Your task to perform on an android device: toggle location history Image 0: 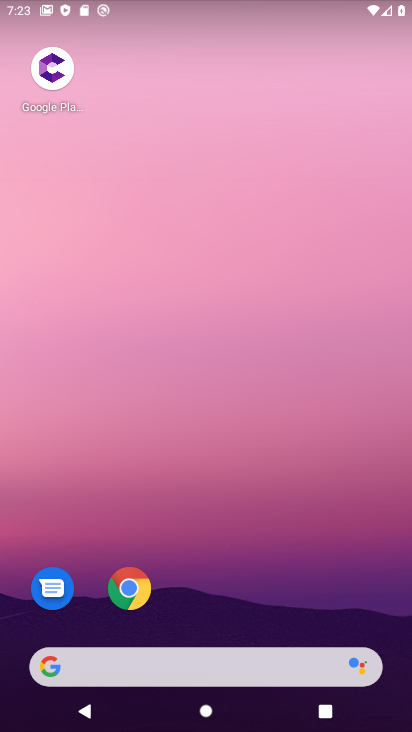
Step 0: drag from (201, 601) to (245, 125)
Your task to perform on an android device: toggle location history Image 1: 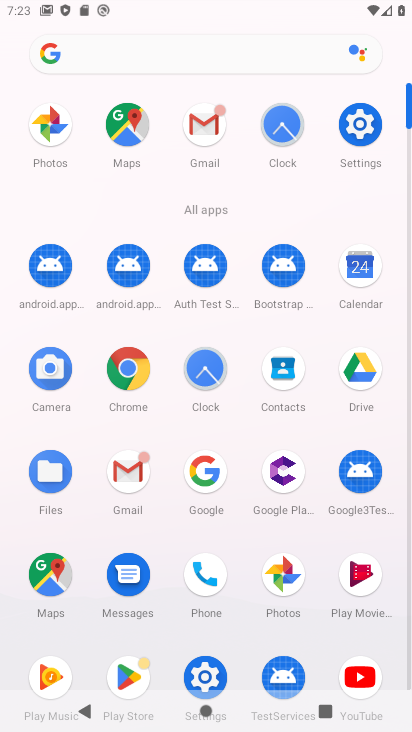
Step 1: click (359, 122)
Your task to perform on an android device: toggle location history Image 2: 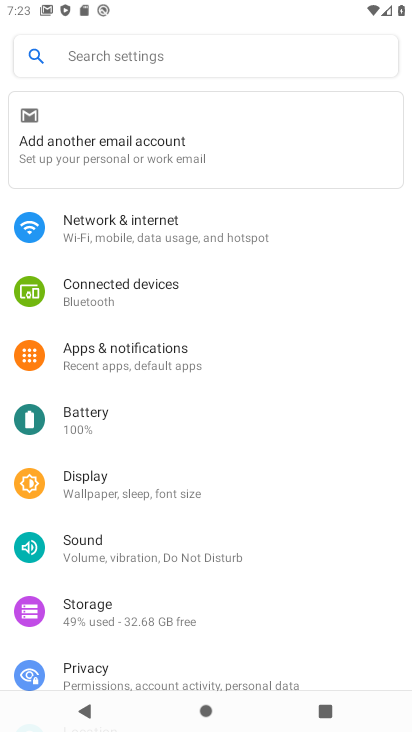
Step 2: drag from (139, 605) to (150, 236)
Your task to perform on an android device: toggle location history Image 3: 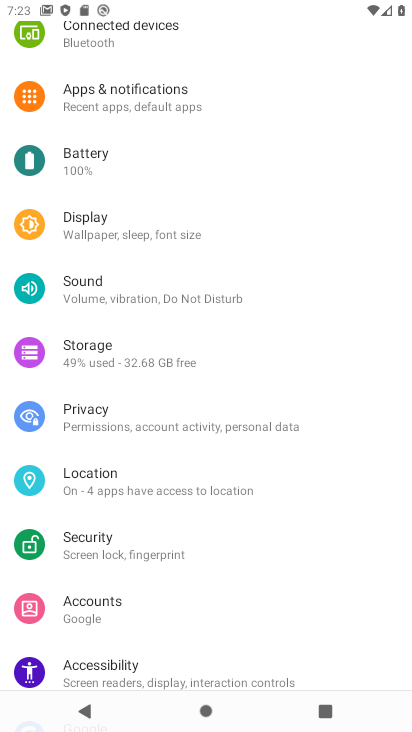
Step 3: click (120, 603)
Your task to perform on an android device: toggle location history Image 4: 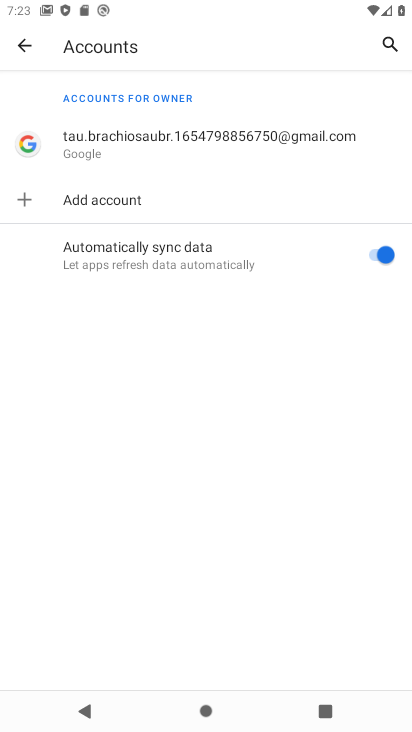
Step 4: click (16, 35)
Your task to perform on an android device: toggle location history Image 5: 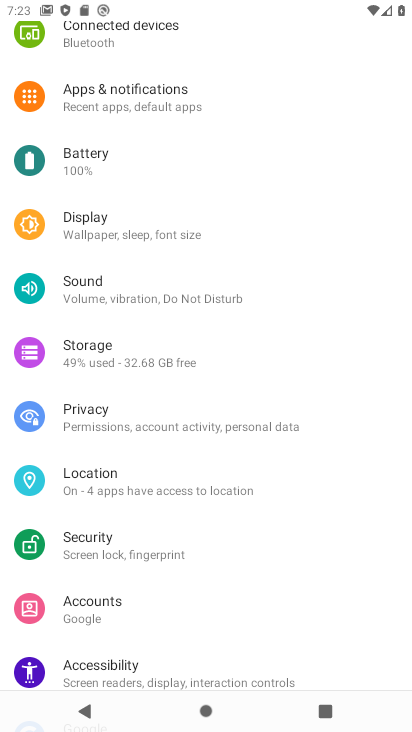
Step 5: click (135, 377)
Your task to perform on an android device: toggle location history Image 6: 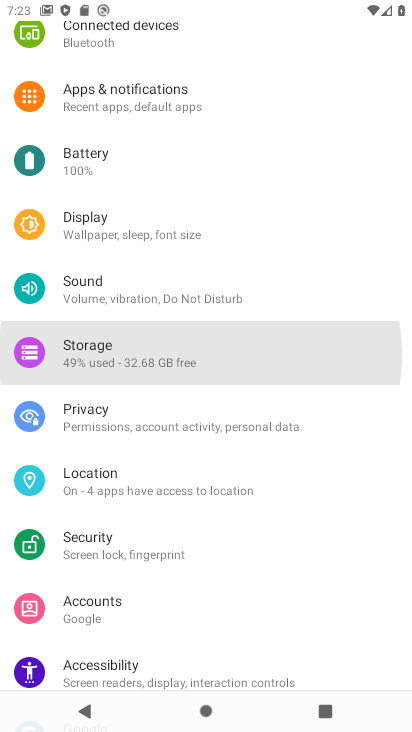
Step 6: drag from (140, 509) to (120, 257)
Your task to perform on an android device: toggle location history Image 7: 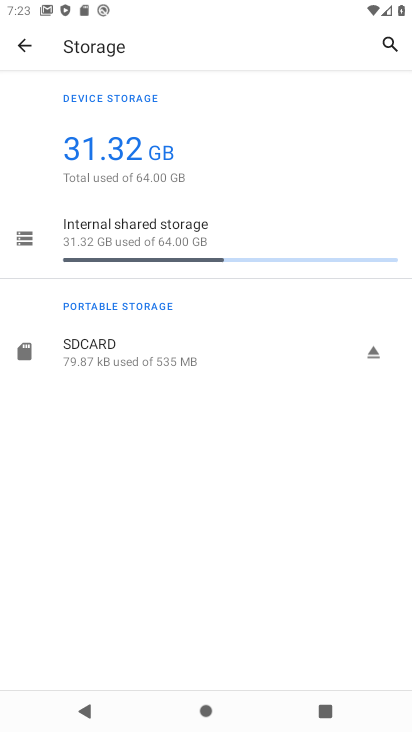
Step 7: click (29, 36)
Your task to perform on an android device: toggle location history Image 8: 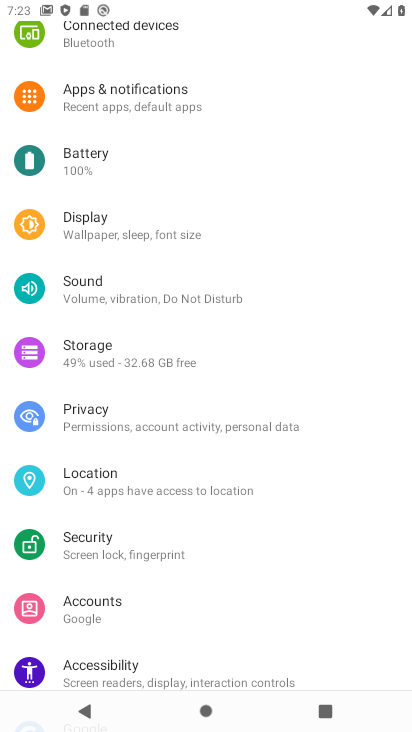
Step 8: click (122, 479)
Your task to perform on an android device: toggle location history Image 9: 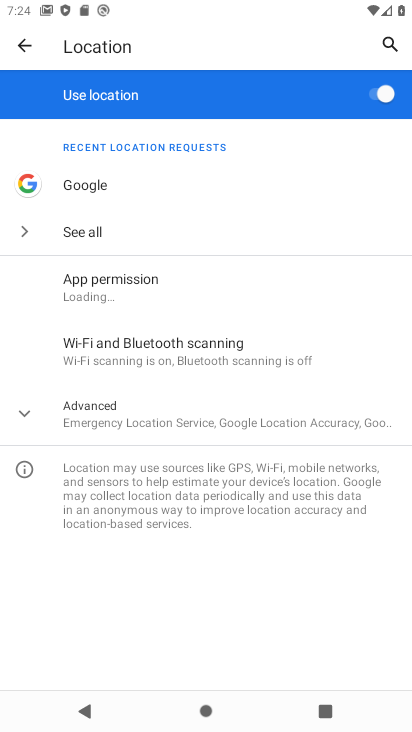
Step 9: click (167, 407)
Your task to perform on an android device: toggle location history Image 10: 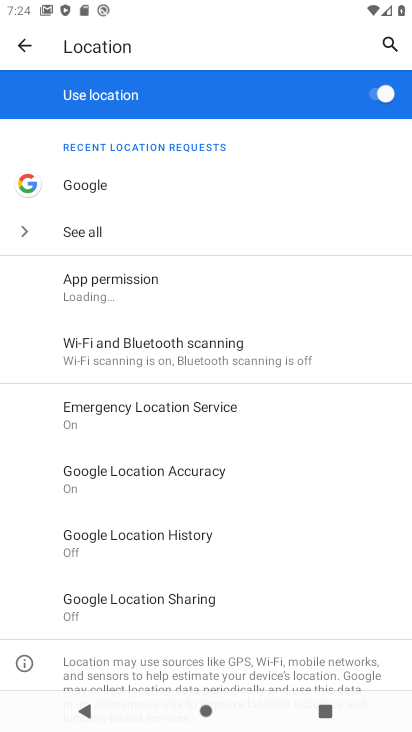
Step 10: click (217, 522)
Your task to perform on an android device: toggle location history Image 11: 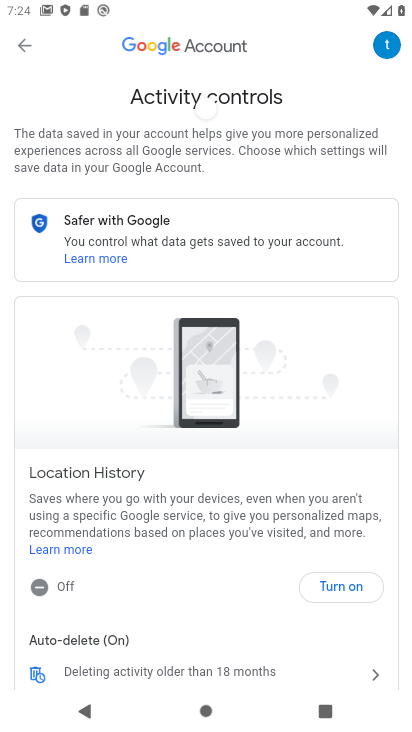
Step 11: click (324, 580)
Your task to perform on an android device: toggle location history Image 12: 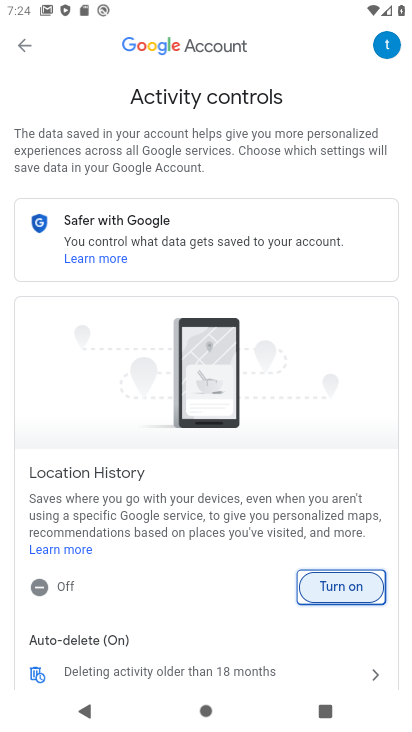
Step 12: task complete